Your task to perform on an android device: check the backup settings in the google photos Image 0: 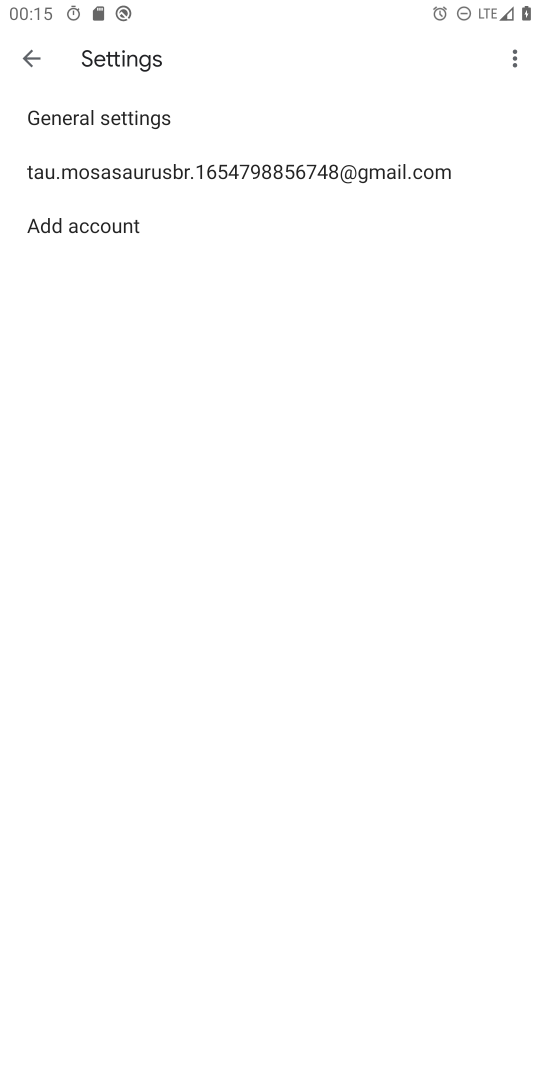
Step 0: press home button
Your task to perform on an android device: check the backup settings in the google photos Image 1: 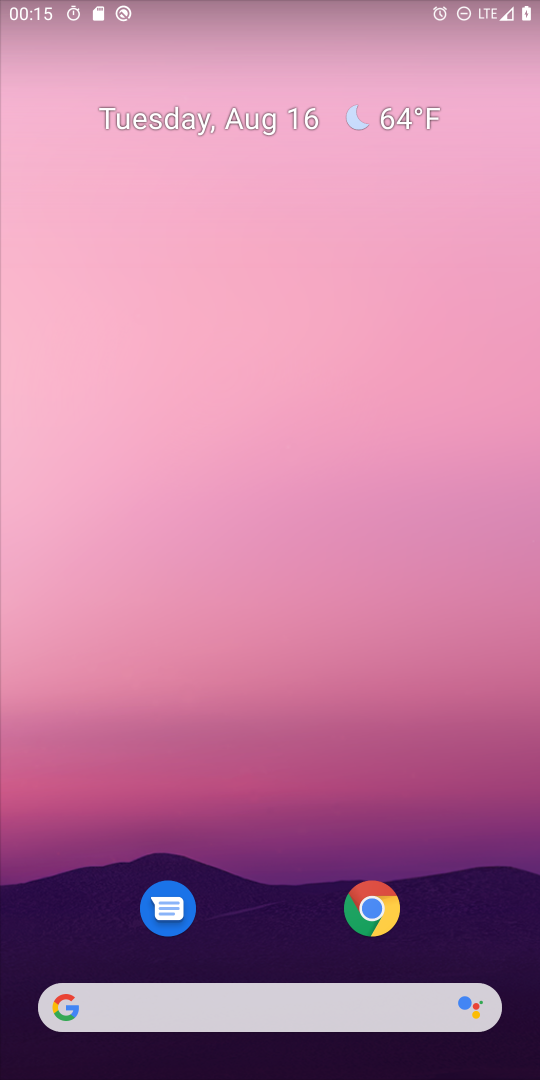
Step 1: drag from (276, 920) to (252, 236)
Your task to perform on an android device: check the backup settings in the google photos Image 2: 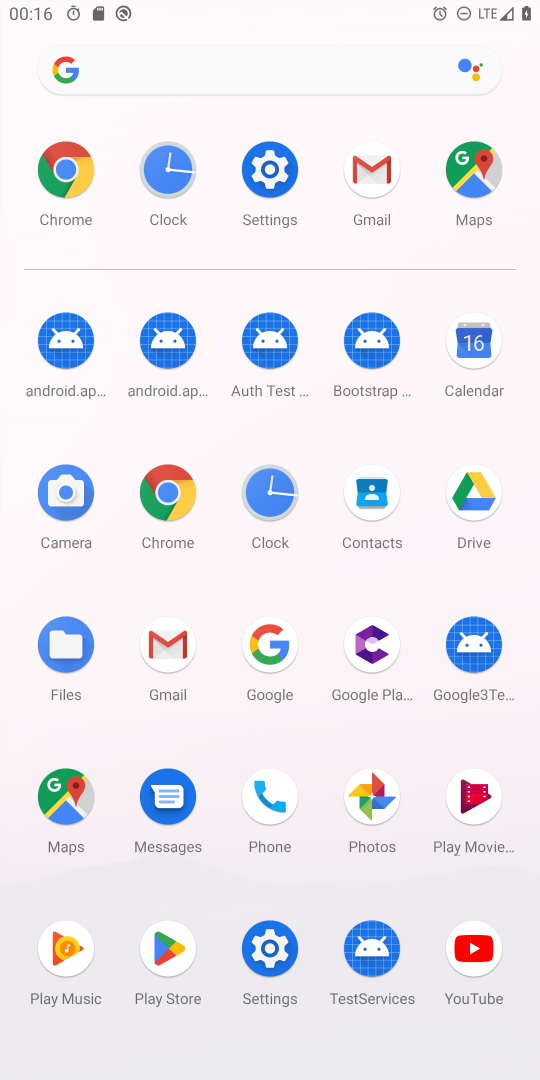
Step 2: click (381, 812)
Your task to perform on an android device: check the backup settings in the google photos Image 3: 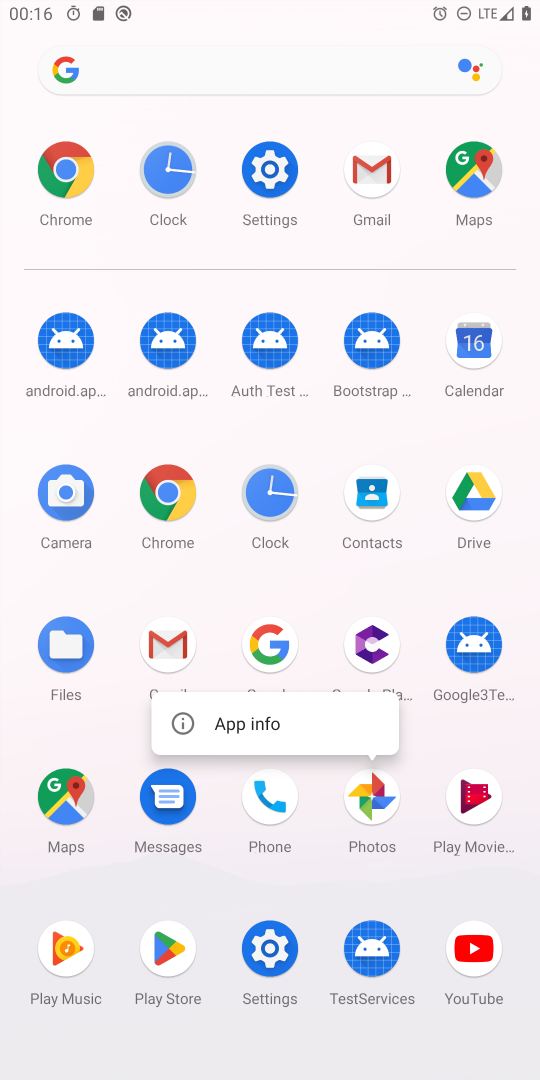
Step 3: click (370, 784)
Your task to perform on an android device: check the backup settings in the google photos Image 4: 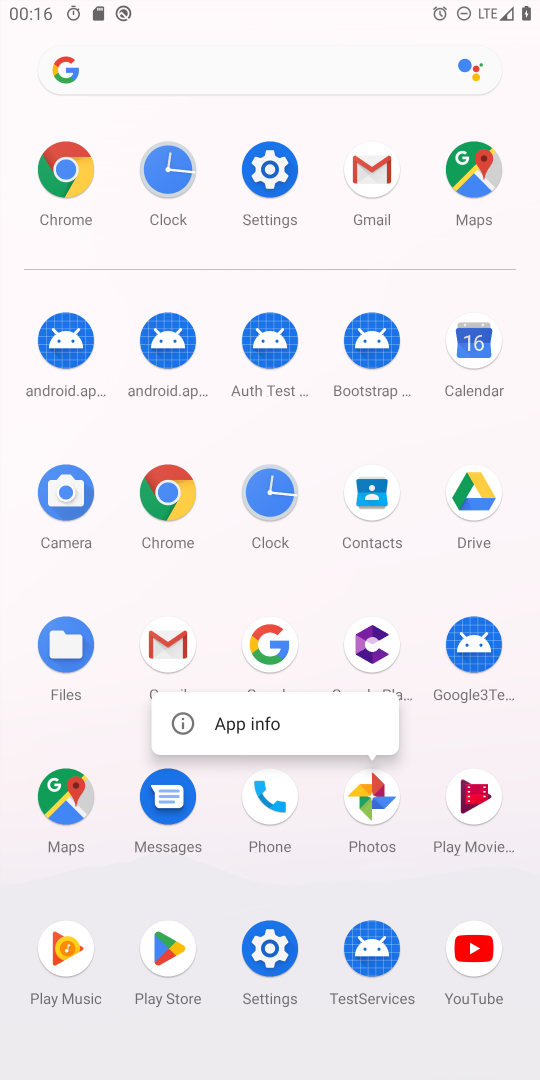
Step 4: click (374, 804)
Your task to perform on an android device: check the backup settings in the google photos Image 5: 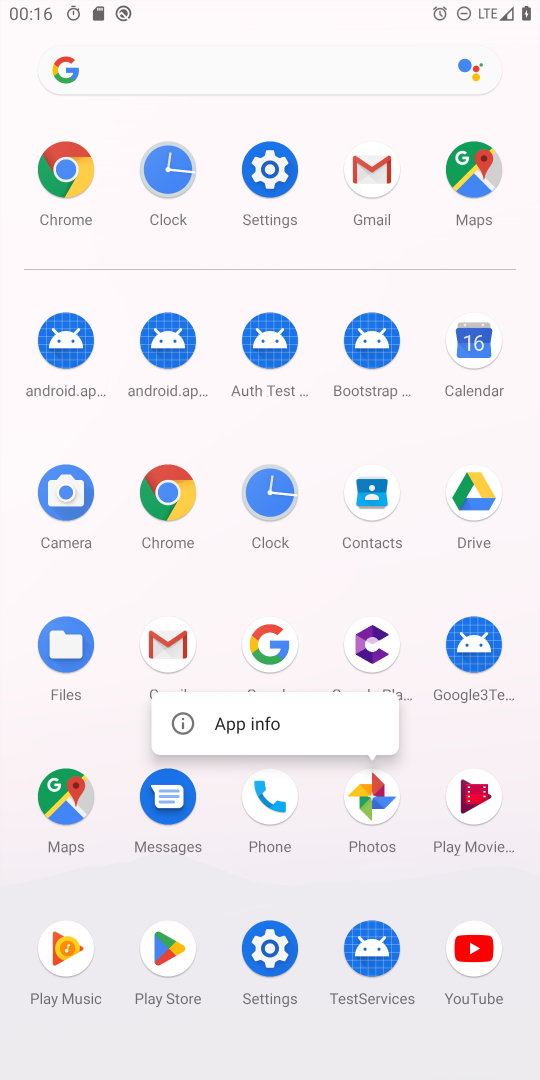
Step 5: click (374, 804)
Your task to perform on an android device: check the backup settings in the google photos Image 6: 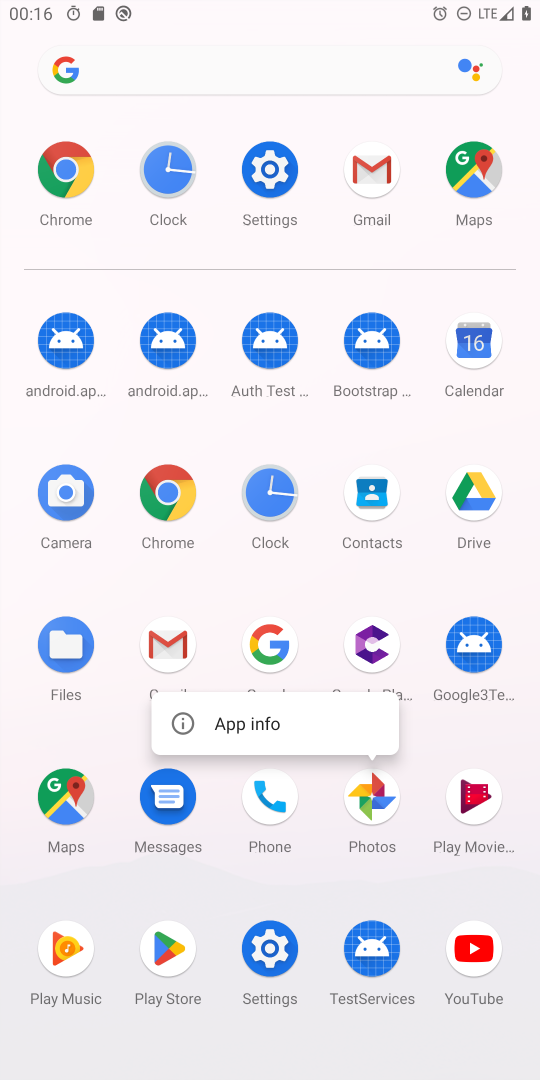
Step 6: click (374, 804)
Your task to perform on an android device: check the backup settings in the google photos Image 7: 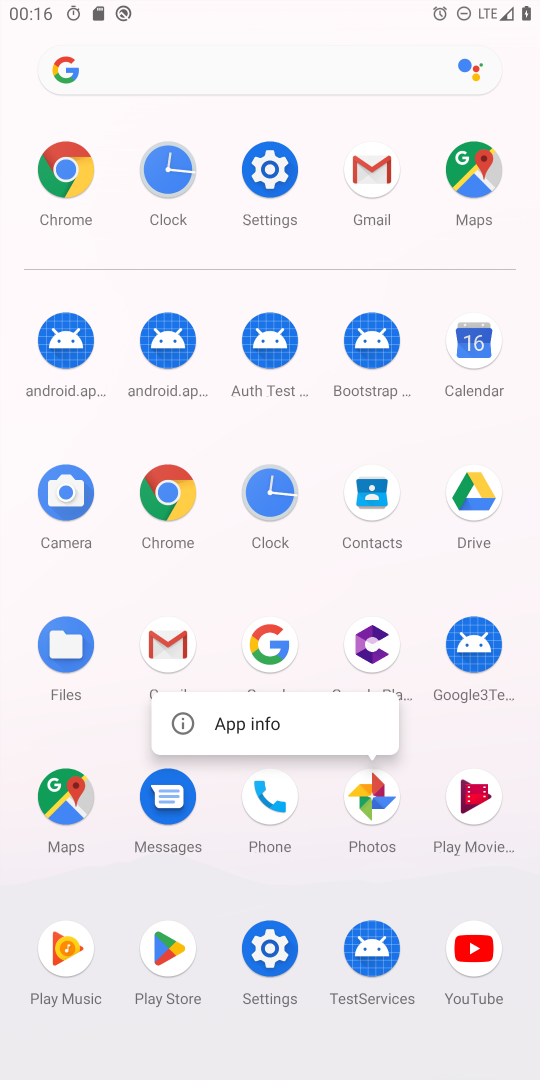
Step 7: click (374, 804)
Your task to perform on an android device: check the backup settings in the google photos Image 8: 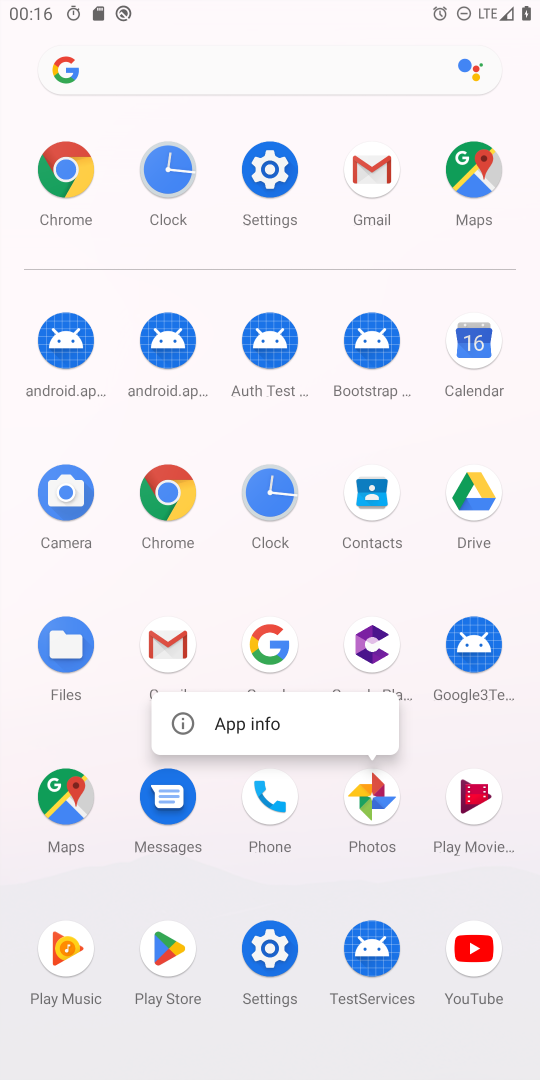
Step 8: click (374, 804)
Your task to perform on an android device: check the backup settings in the google photos Image 9: 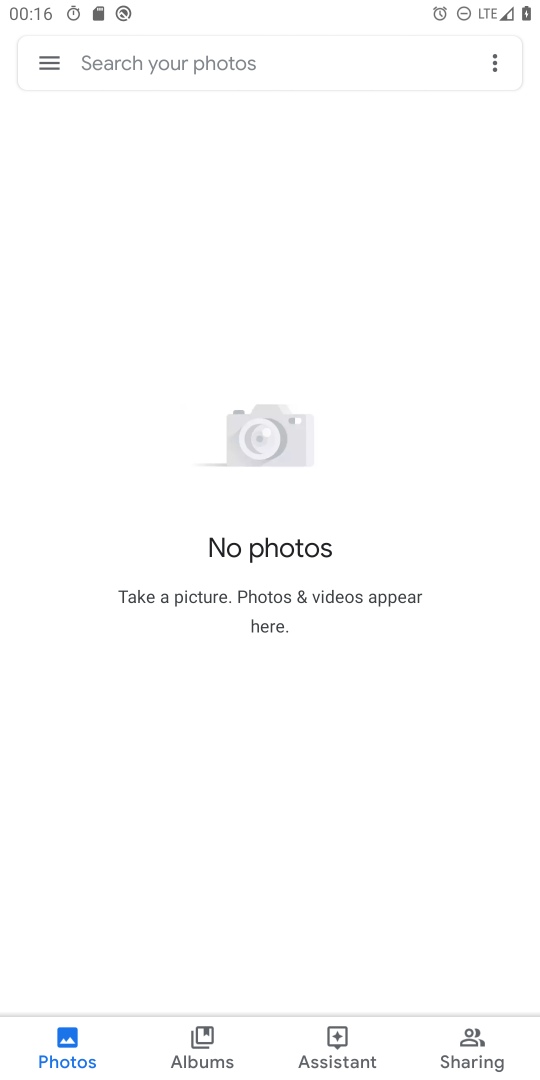
Step 9: click (58, 55)
Your task to perform on an android device: check the backup settings in the google photos Image 10: 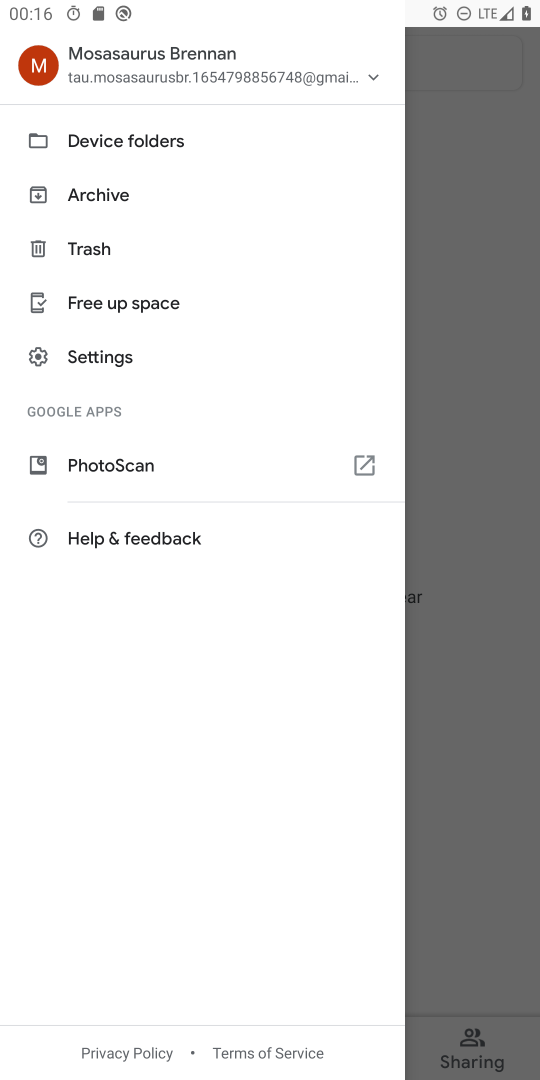
Step 10: click (104, 355)
Your task to perform on an android device: check the backup settings in the google photos Image 11: 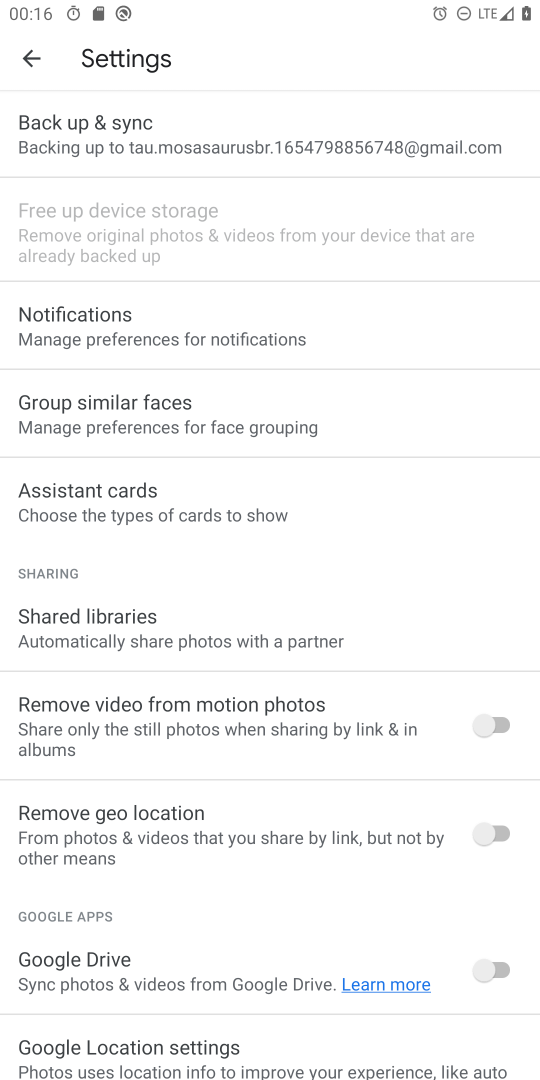
Step 11: click (185, 142)
Your task to perform on an android device: check the backup settings in the google photos Image 12: 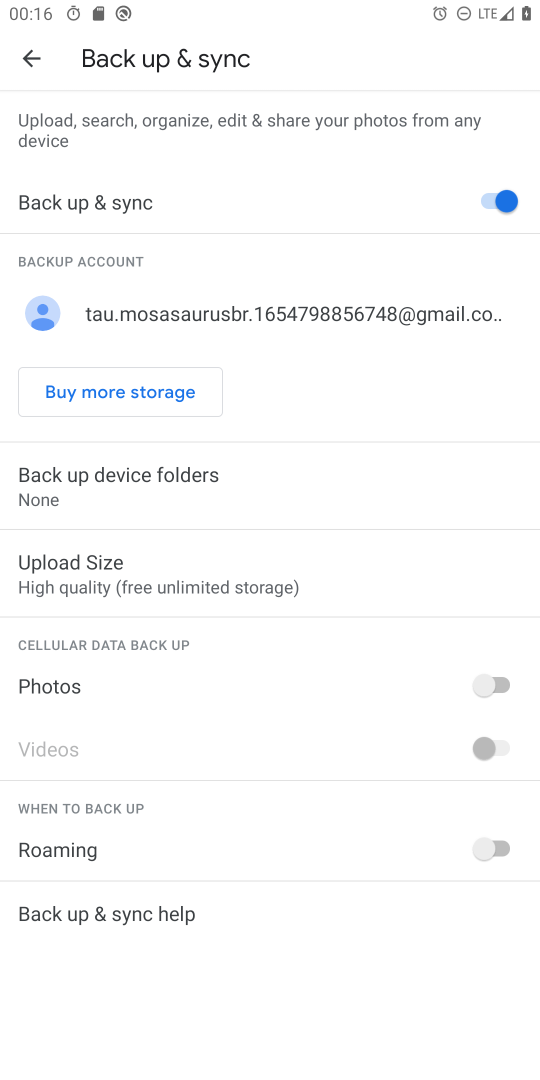
Step 12: click (180, 199)
Your task to perform on an android device: check the backup settings in the google photos Image 13: 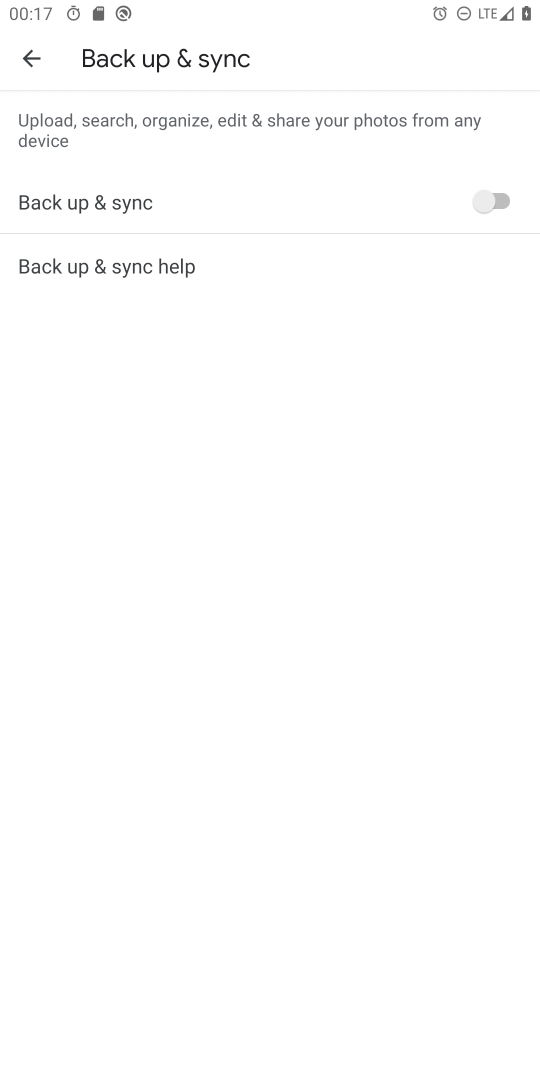
Step 13: task complete